Your task to perform on an android device: star an email in the gmail app Image 0: 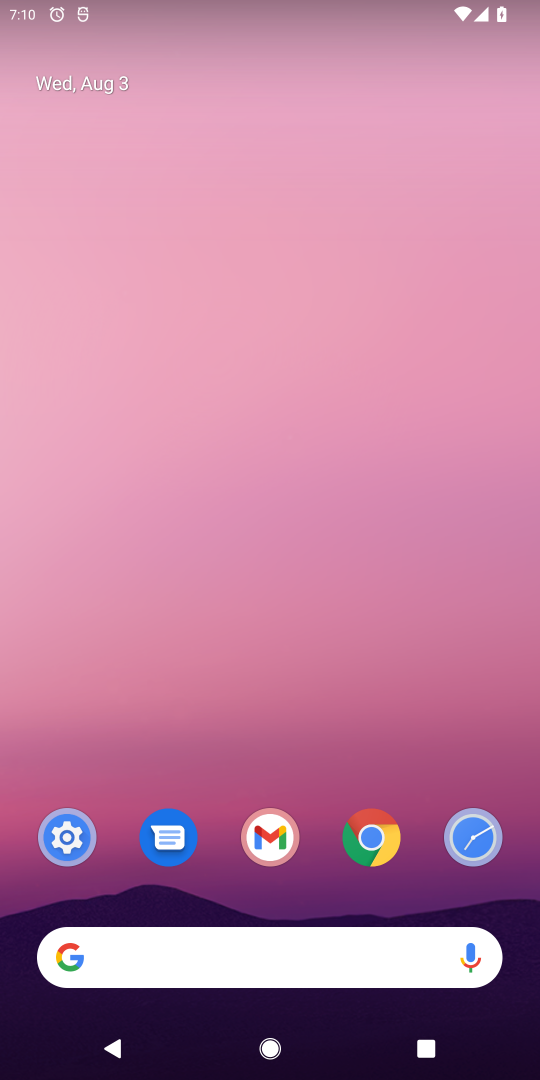
Step 0: press home button
Your task to perform on an android device: star an email in the gmail app Image 1: 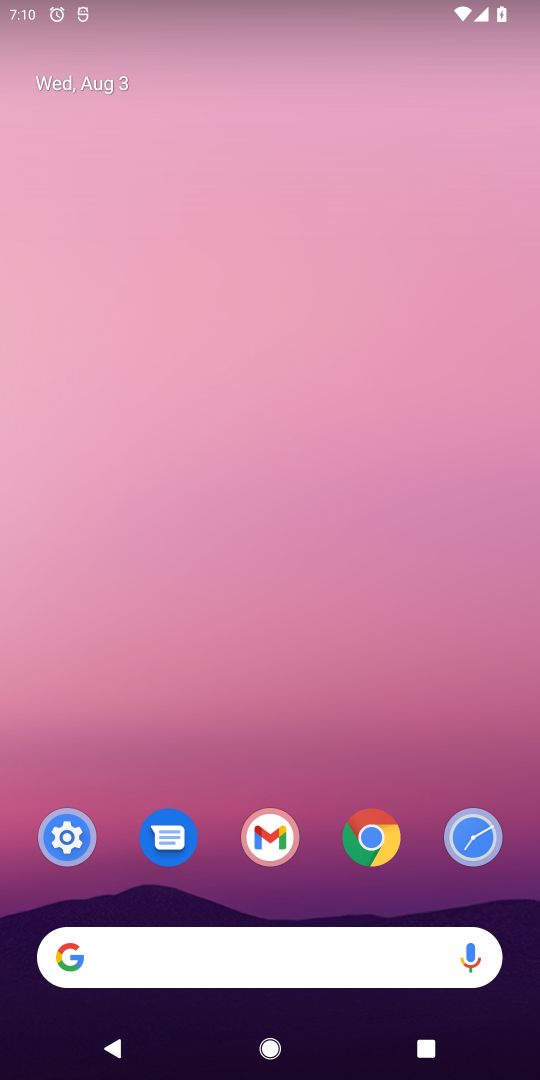
Step 1: drag from (324, 634) to (311, 97)
Your task to perform on an android device: star an email in the gmail app Image 2: 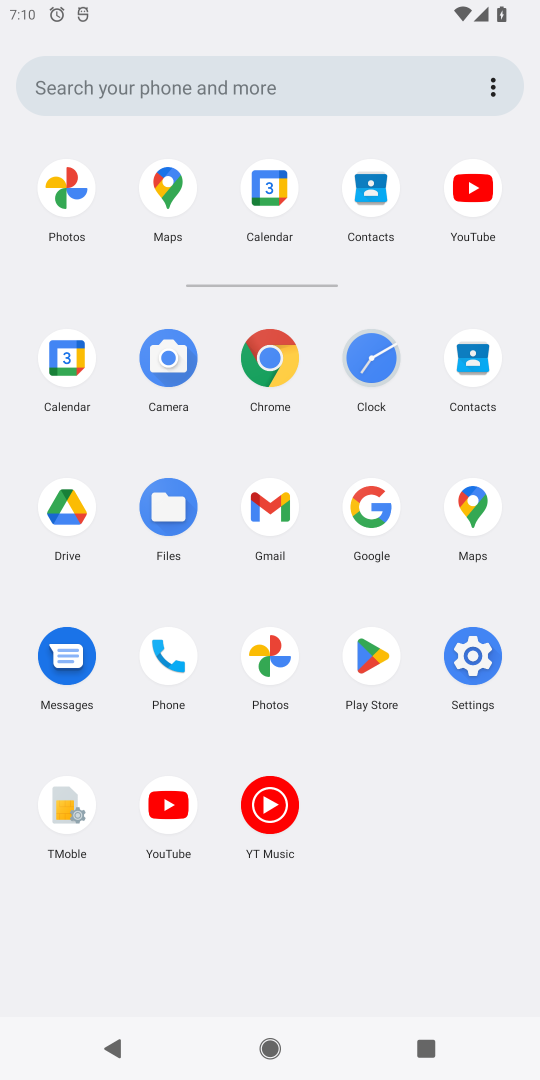
Step 2: click (267, 495)
Your task to perform on an android device: star an email in the gmail app Image 3: 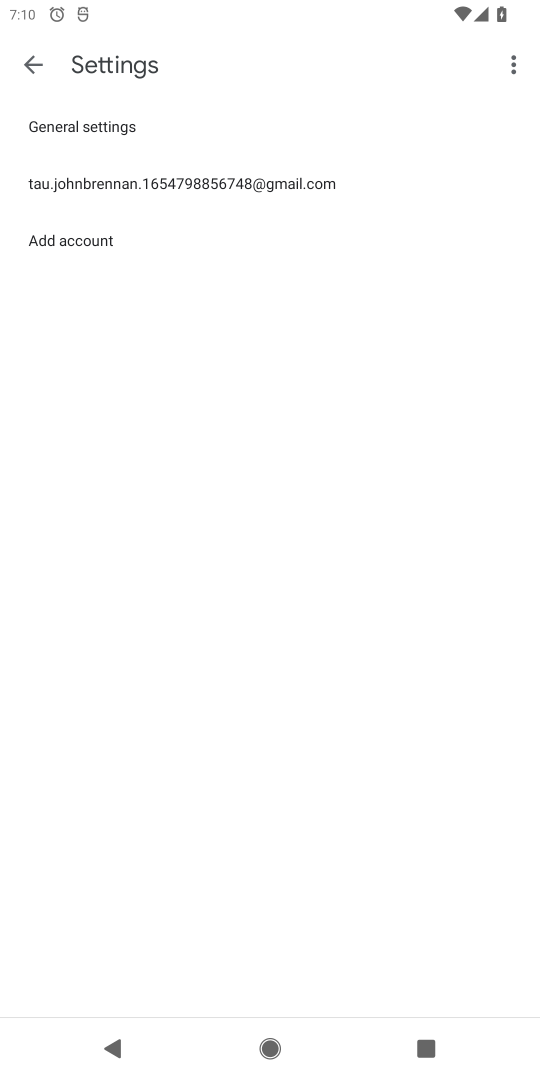
Step 3: click (120, 186)
Your task to perform on an android device: star an email in the gmail app Image 4: 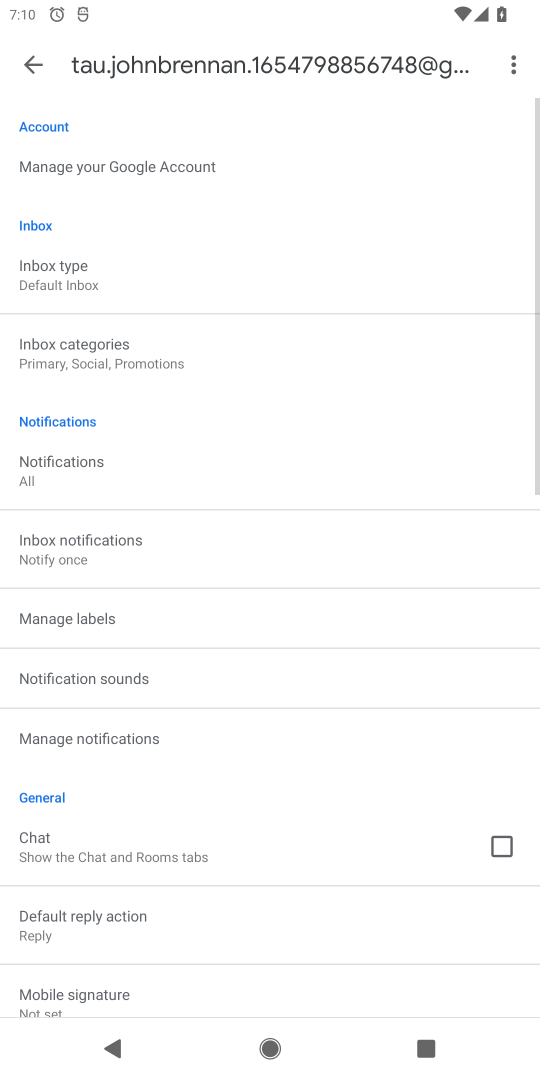
Step 4: click (16, 66)
Your task to perform on an android device: star an email in the gmail app Image 5: 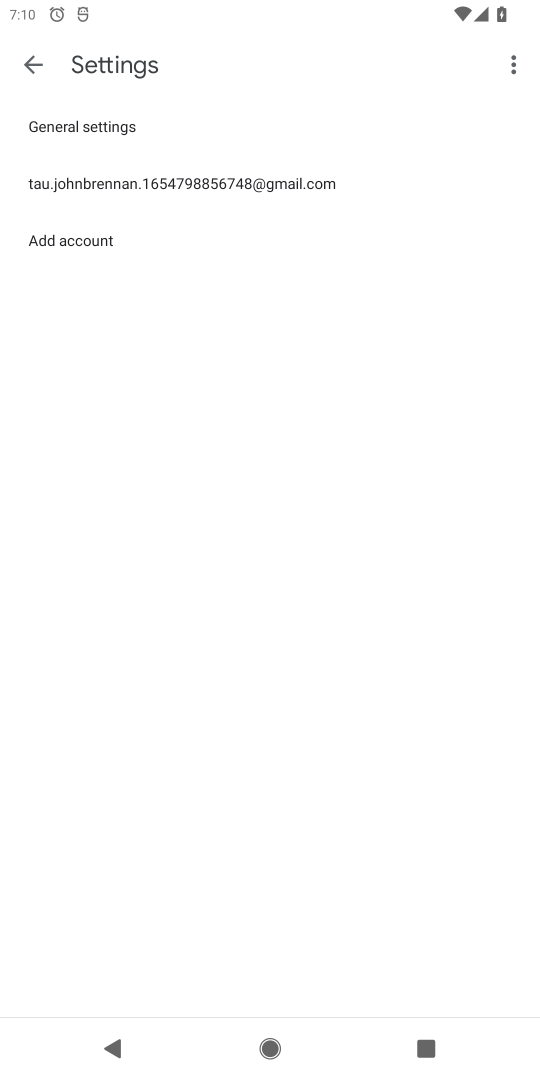
Step 5: click (36, 62)
Your task to perform on an android device: star an email in the gmail app Image 6: 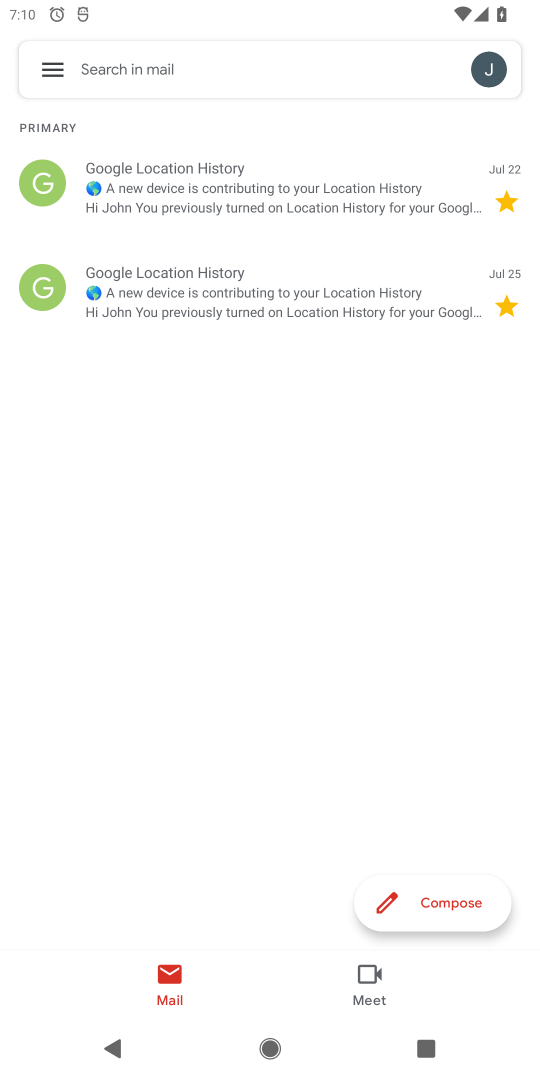
Step 6: click (195, 183)
Your task to perform on an android device: star an email in the gmail app Image 7: 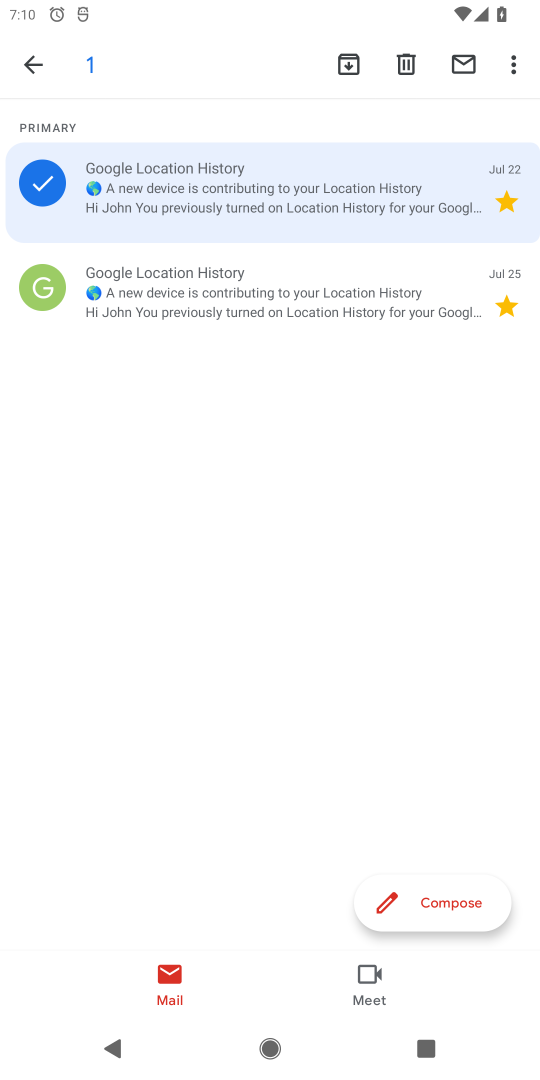
Step 7: click (509, 66)
Your task to perform on an android device: star an email in the gmail app Image 8: 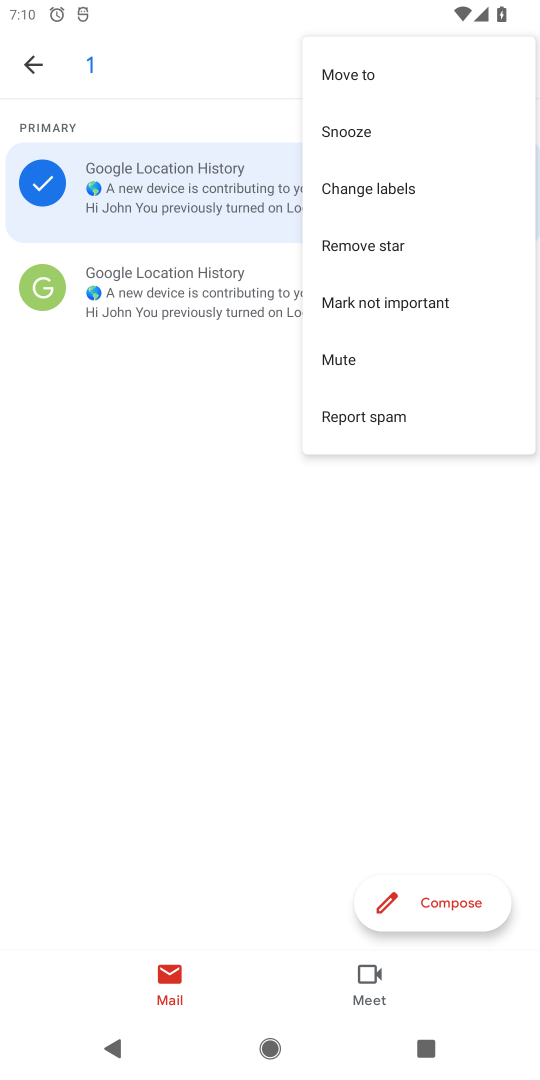
Step 8: click (118, 191)
Your task to perform on an android device: star an email in the gmail app Image 9: 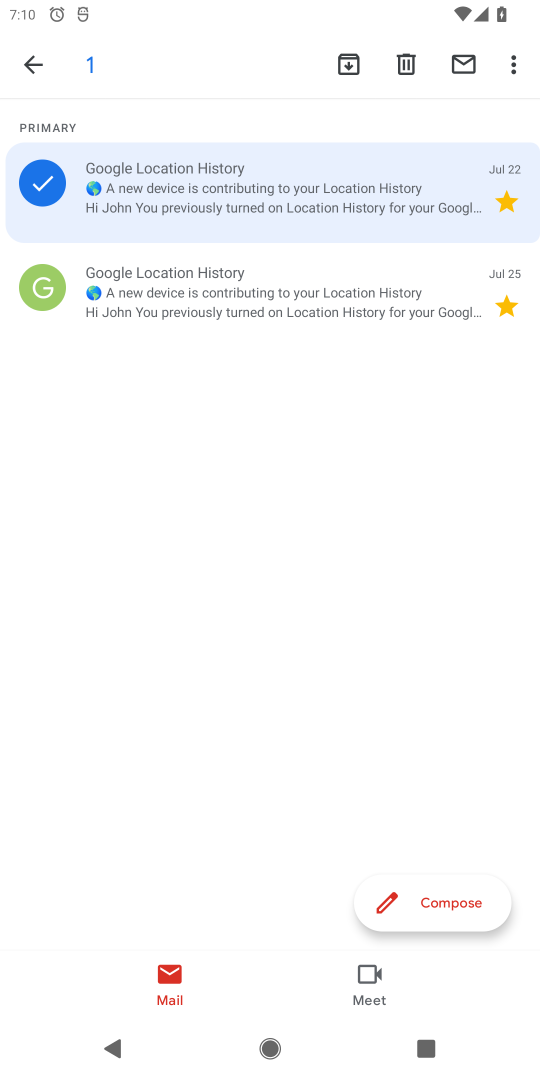
Step 9: task complete